Your task to perform on an android device: Go to ESPN.com Image 0: 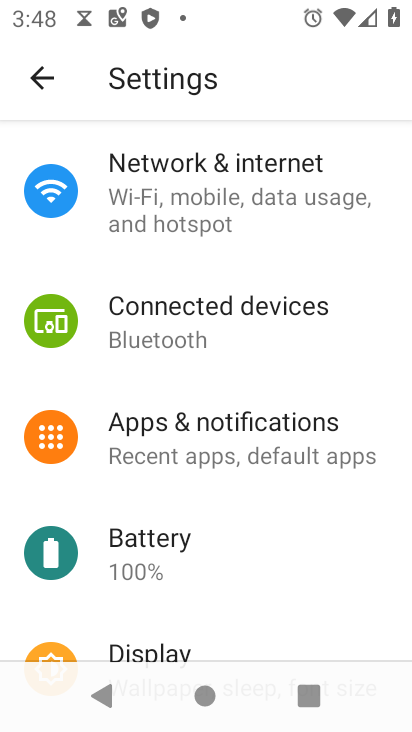
Step 0: press home button
Your task to perform on an android device: Go to ESPN.com Image 1: 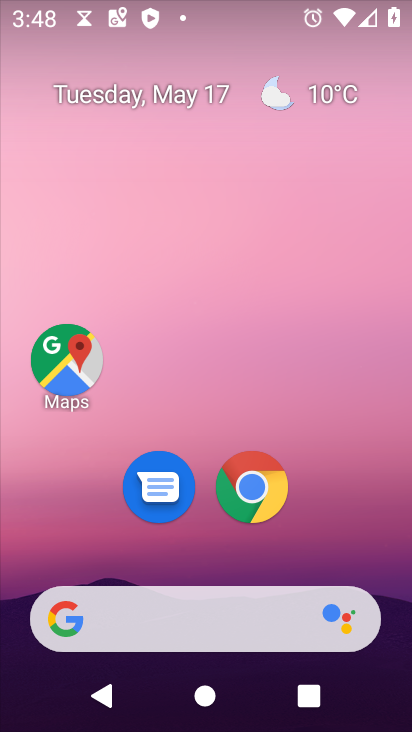
Step 1: click (255, 491)
Your task to perform on an android device: Go to ESPN.com Image 2: 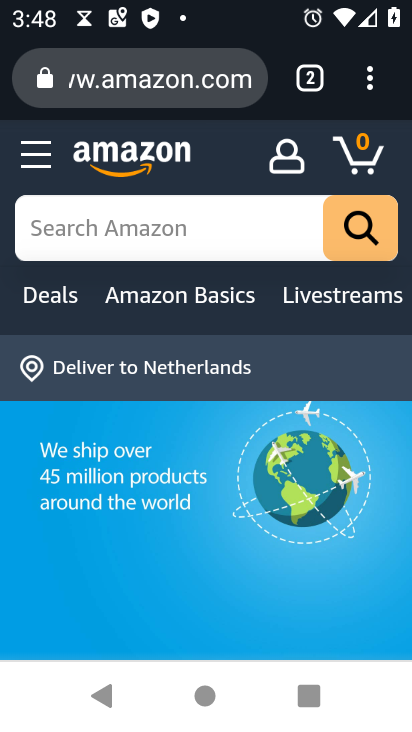
Step 2: click (122, 66)
Your task to perform on an android device: Go to ESPN.com Image 3: 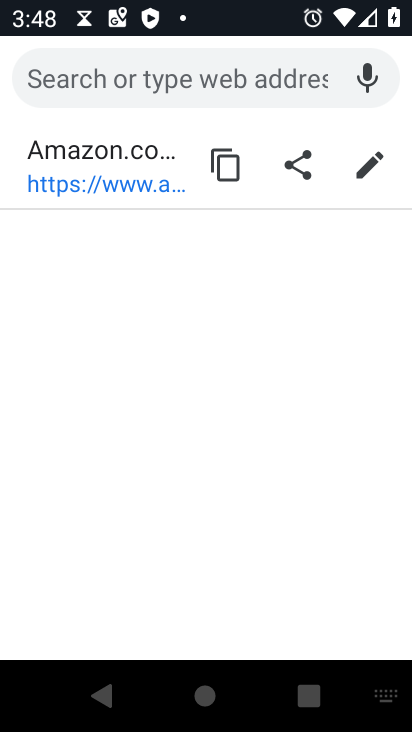
Step 3: type "espn.com"
Your task to perform on an android device: Go to ESPN.com Image 4: 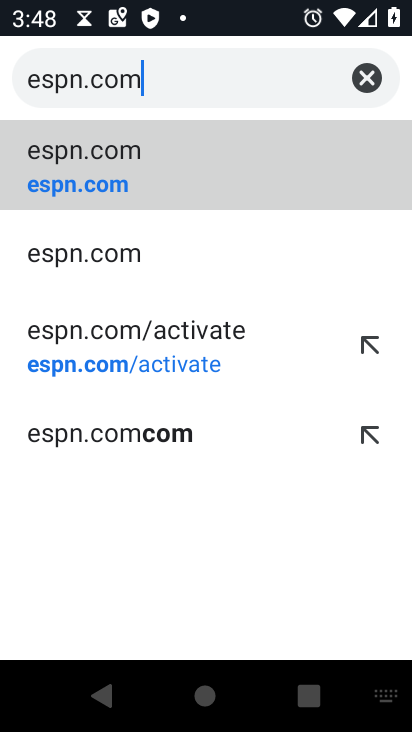
Step 4: click (67, 149)
Your task to perform on an android device: Go to ESPN.com Image 5: 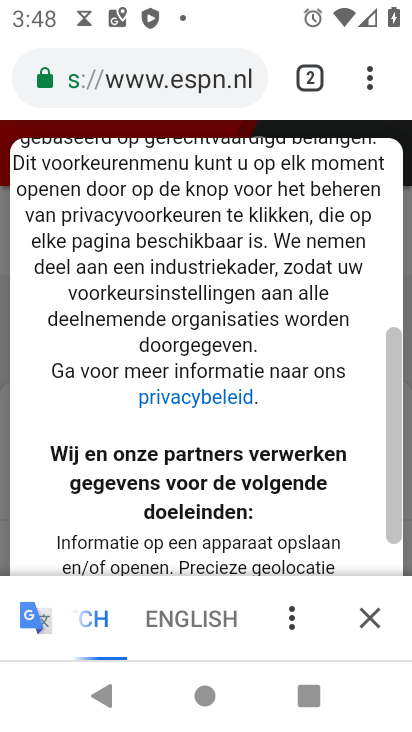
Step 5: task complete